Your task to perform on an android device: turn on wifi Image 0: 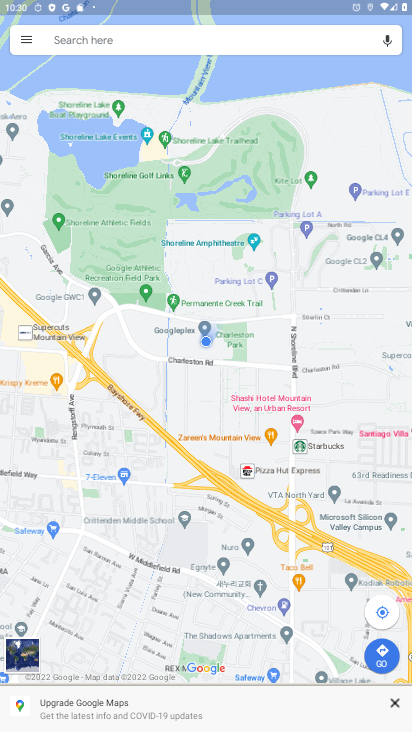
Step 0: press back button
Your task to perform on an android device: turn on wifi Image 1: 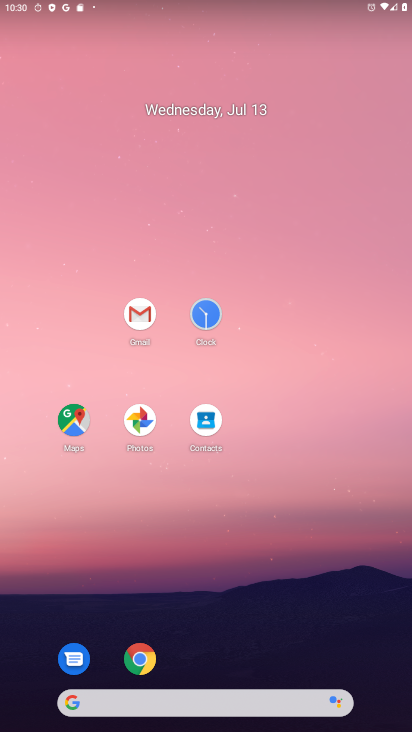
Step 1: drag from (238, 620) to (270, 179)
Your task to perform on an android device: turn on wifi Image 2: 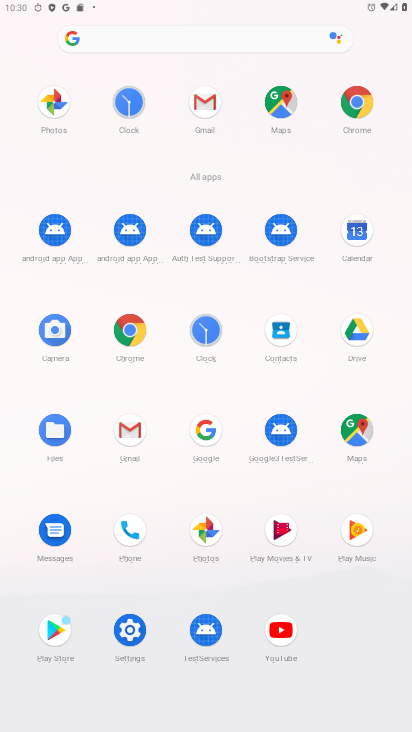
Step 2: drag from (126, 633) to (74, 141)
Your task to perform on an android device: turn on wifi Image 3: 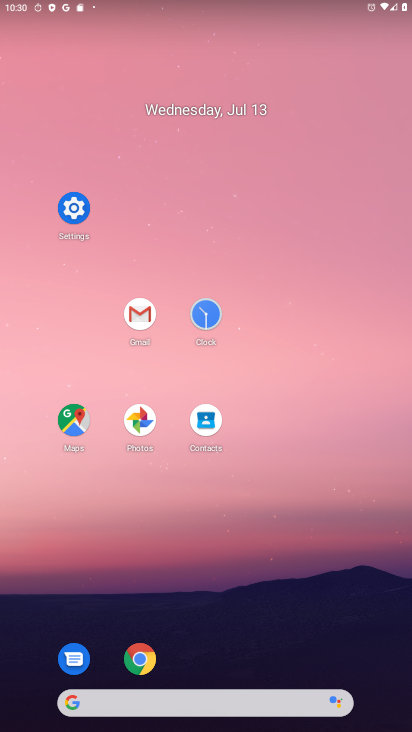
Step 3: click (79, 200)
Your task to perform on an android device: turn on wifi Image 4: 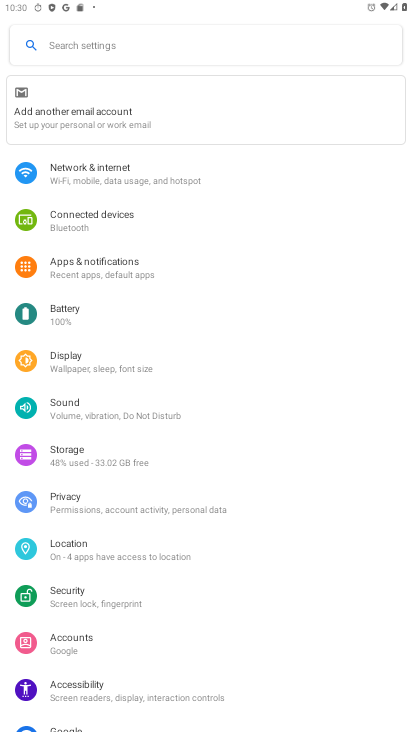
Step 4: click (159, 186)
Your task to perform on an android device: turn on wifi Image 5: 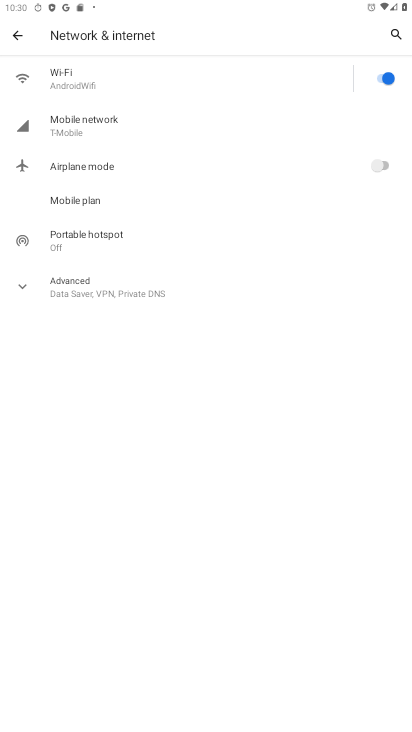
Step 5: task complete